Your task to perform on an android device: turn notification dots on Image 0: 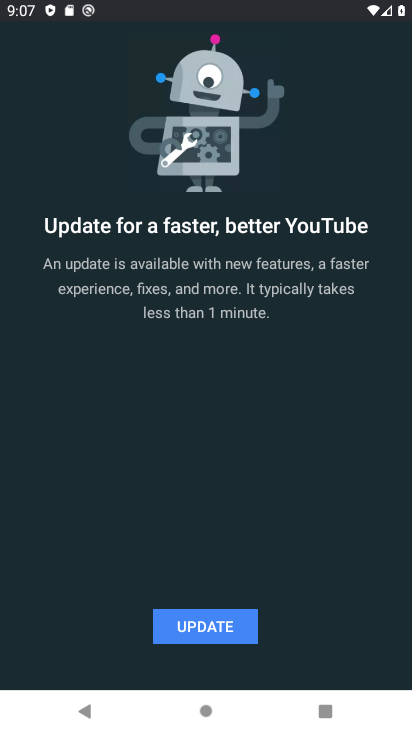
Step 0: press home button
Your task to perform on an android device: turn notification dots on Image 1: 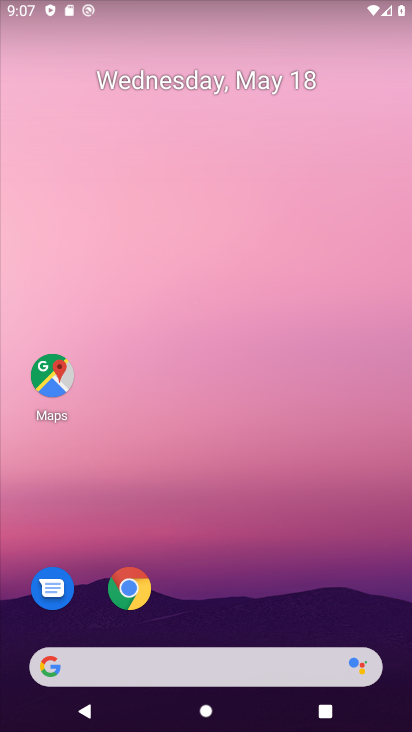
Step 1: drag from (181, 677) to (340, 60)
Your task to perform on an android device: turn notification dots on Image 2: 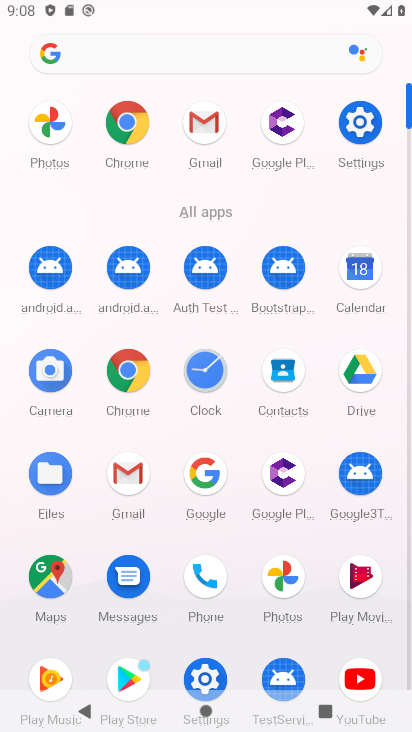
Step 2: click (328, 155)
Your task to perform on an android device: turn notification dots on Image 3: 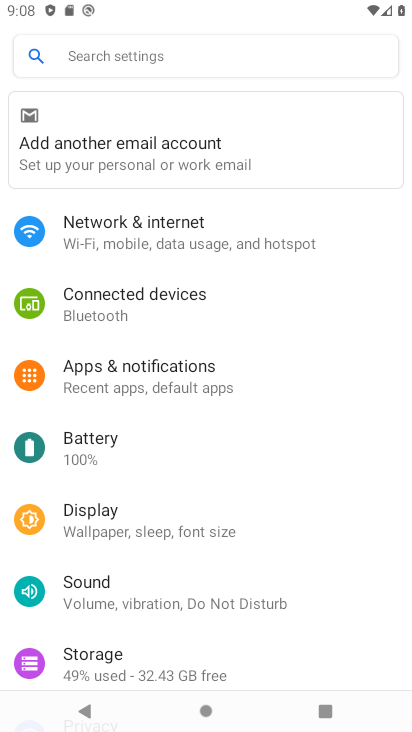
Step 3: click (135, 59)
Your task to perform on an android device: turn notification dots on Image 4: 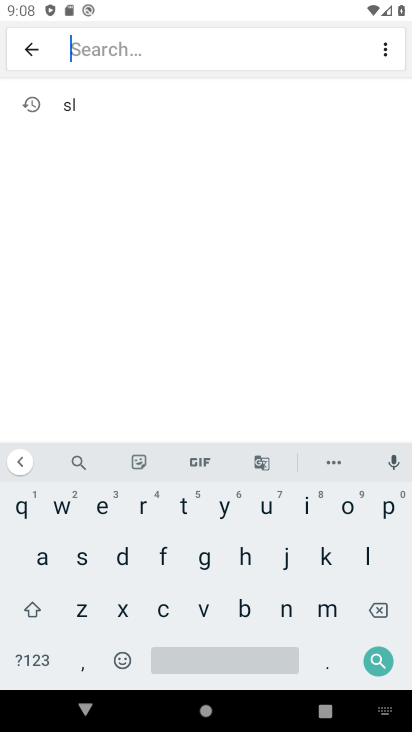
Step 4: click (122, 549)
Your task to perform on an android device: turn notification dots on Image 5: 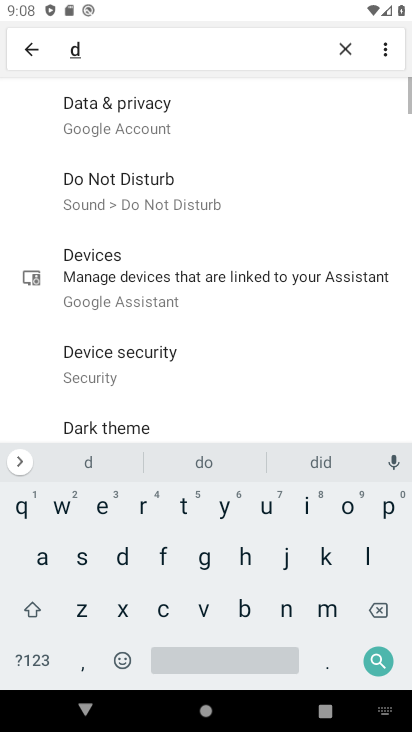
Step 5: click (350, 504)
Your task to perform on an android device: turn notification dots on Image 6: 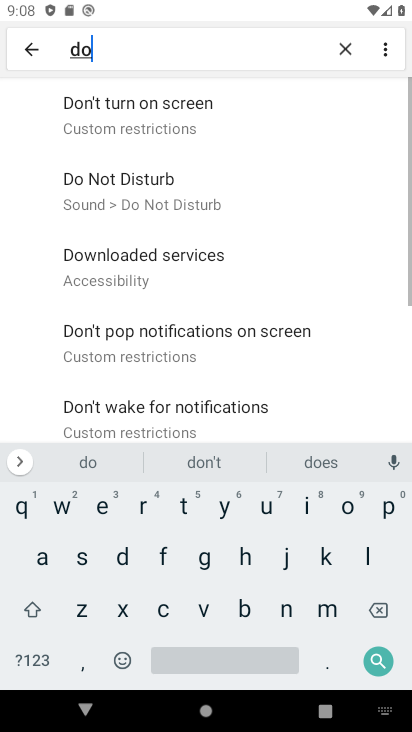
Step 6: click (176, 511)
Your task to perform on an android device: turn notification dots on Image 7: 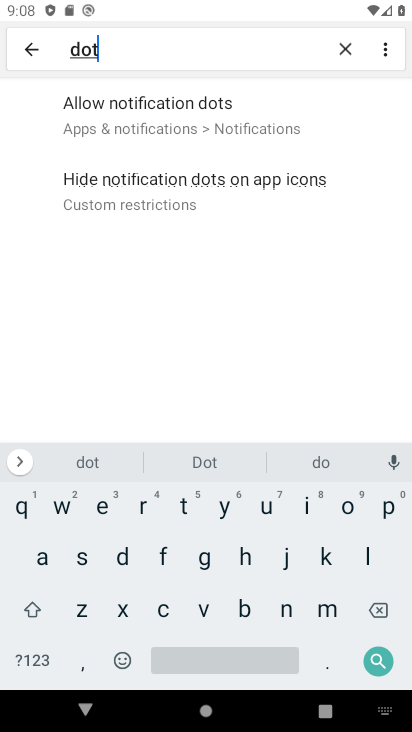
Step 7: click (176, 111)
Your task to perform on an android device: turn notification dots on Image 8: 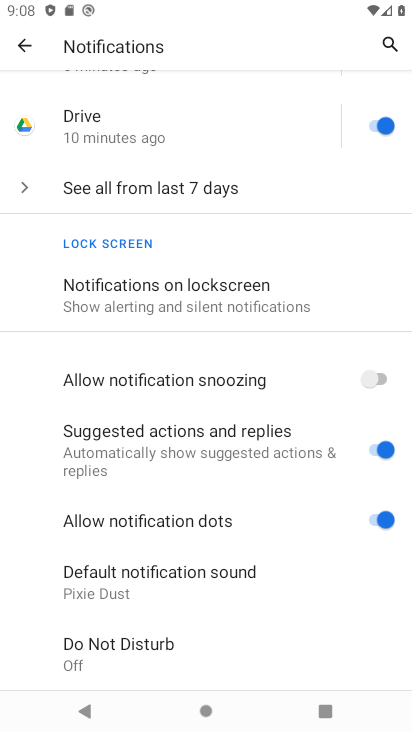
Step 8: click (235, 529)
Your task to perform on an android device: turn notification dots on Image 9: 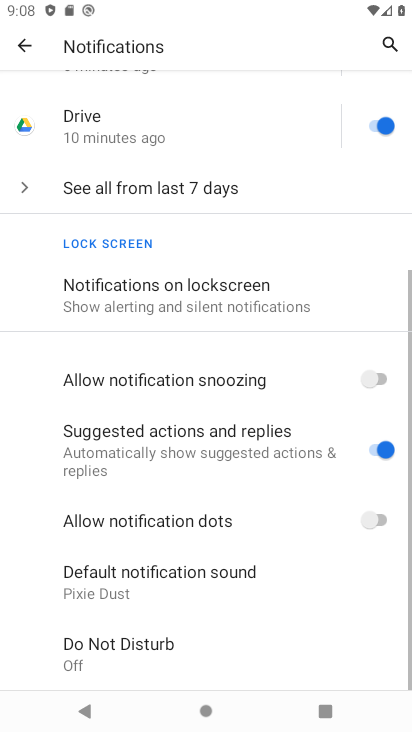
Step 9: click (235, 529)
Your task to perform on an android device: turn notification dots on Image 10: 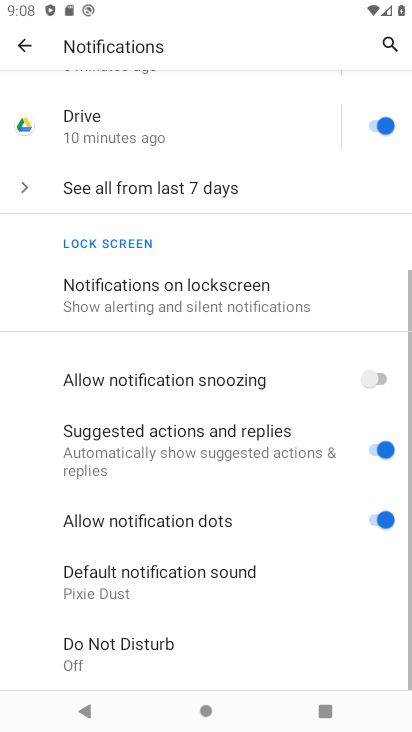
Step 10: task complete